Your task to perform on an android device: turn smart compose on in the gmail app Image 0: 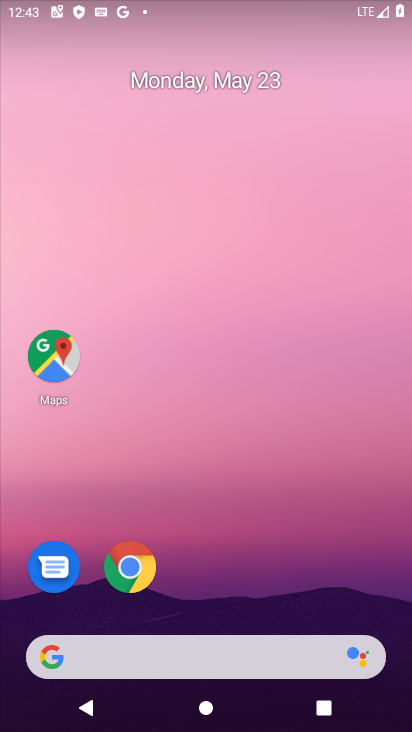
Step 0: drag from (260, 604) to (225, 115)
Your task to perform on an android device: turn smart compose on in the gmail app Image 1: 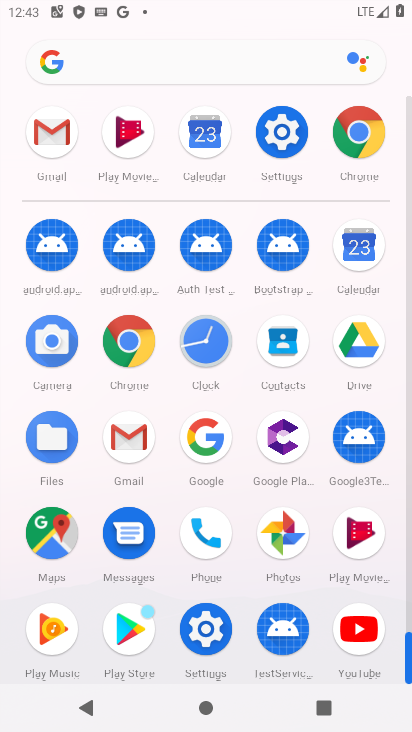
Step 1: click (60, 136)
Your task to perform on an android device: turn smart compose on in the gmail app Image 2: 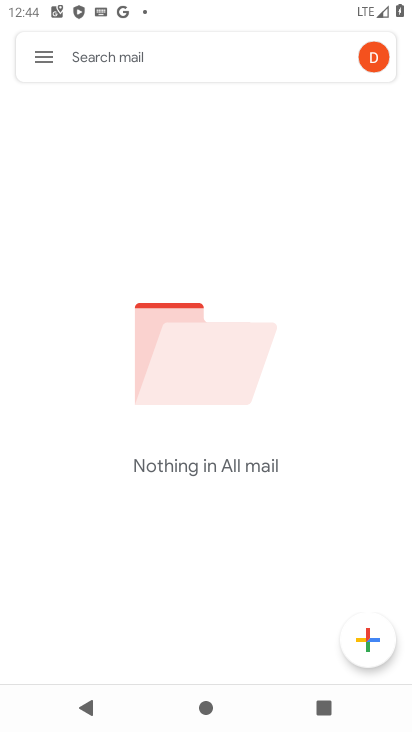
Step 2: click (56, 64)
Your task to perform on an android device: turn smart compose on in the gmail app Image 3: 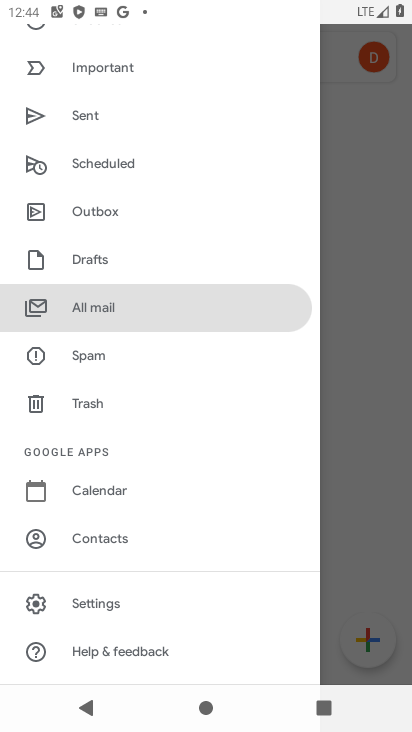
Step 3: click (163, 612)
Your task to perform on an android device: turn smart compose on in the gmail app Image 4: 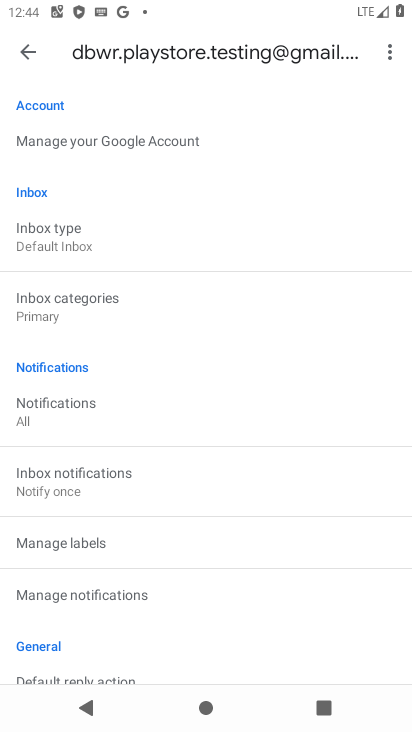
Step 4: task complete